Your task to perform on an android device: read, delete, or share a saved page in the chrome app Image 0: 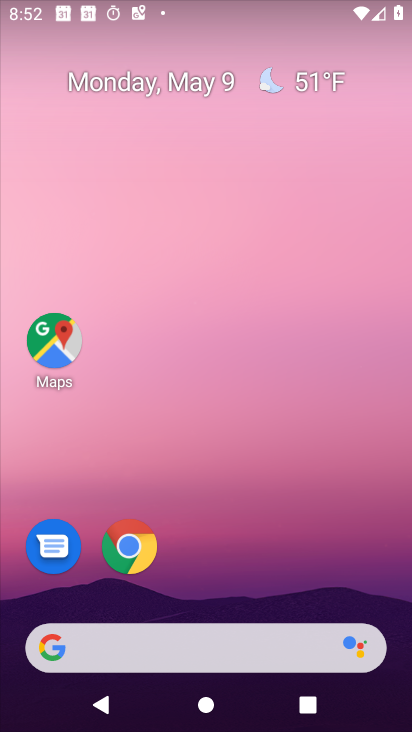
Step 0: click (121, 543)
Your task to perform on an android device: read, delete, or share a saved page in the chrome app Image 1: 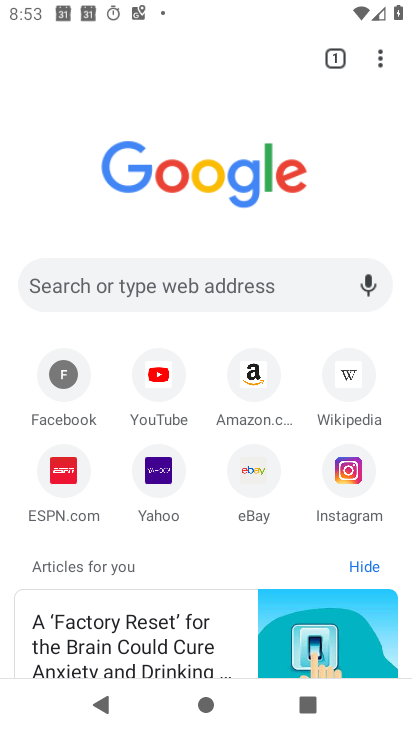
Step 1: click (159, 480)
Your task to perform on an android device: read, delete, or share a saved page in the chrome app Image 2: 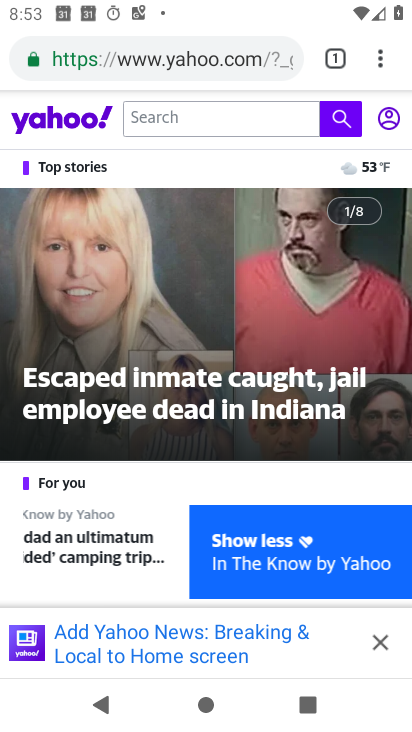
Step 2: drag from (295, 561) to (332, 258)
Your task to perform on an android device: read, delete, or share a saved page in the chrome app Image 3: 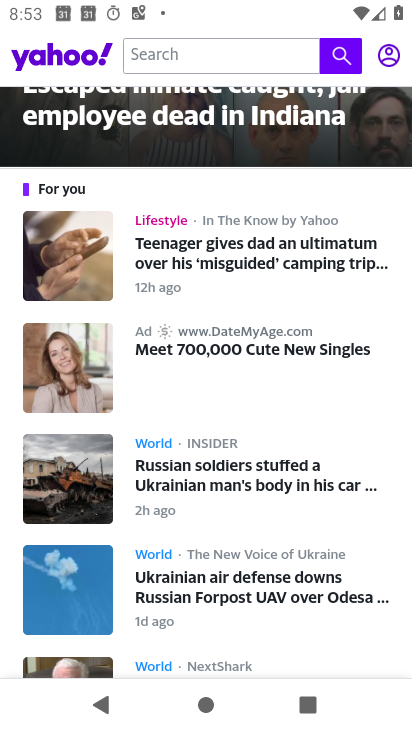
Step 3: drag from (350, 600) to (331, 646)
Your task to perform on an android device: read, delete, or share a saved page in the chrome app Image 4: 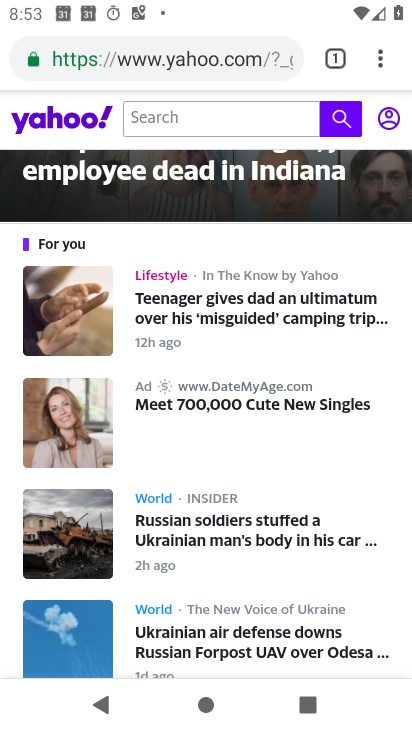
Step 4: drag from (333, 246) to (321, 558)
Your task to perform on an android device: read, delete, or share a saved page in the chrome app Image 5: 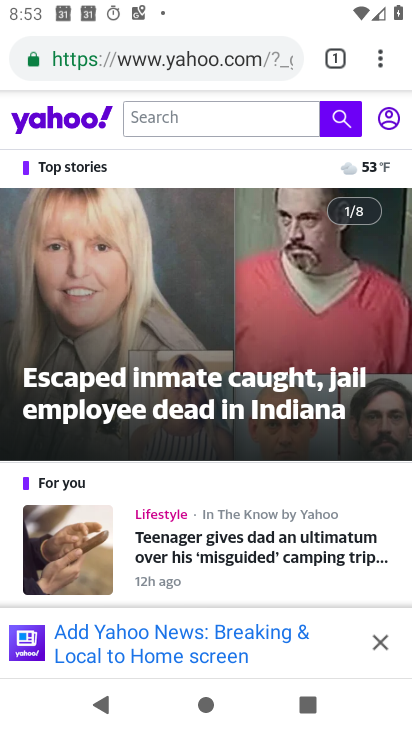
Step 5: drag from (382, 60) to (199, 53)
Your task to perform on an android device: read, delete, or share a saved page in the chrome app Image 6: 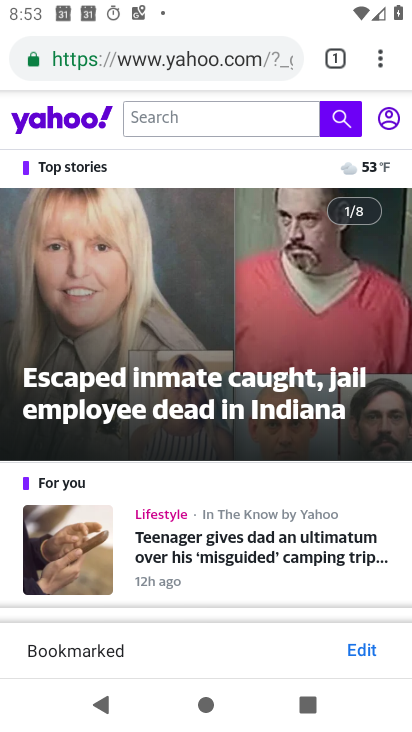
Step 6: drag from (381, 56) to (219, 55)
Your task to perform on an android device: read, delete, or share a saved page in the chrome app Image 7: 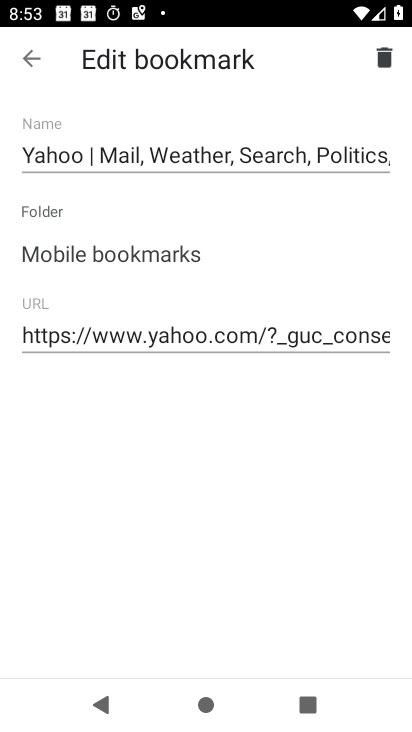
Step 7: click (379, 61)
Your task to perform on an android device: read, delete, or share a saved page in the chrome app Image 8: 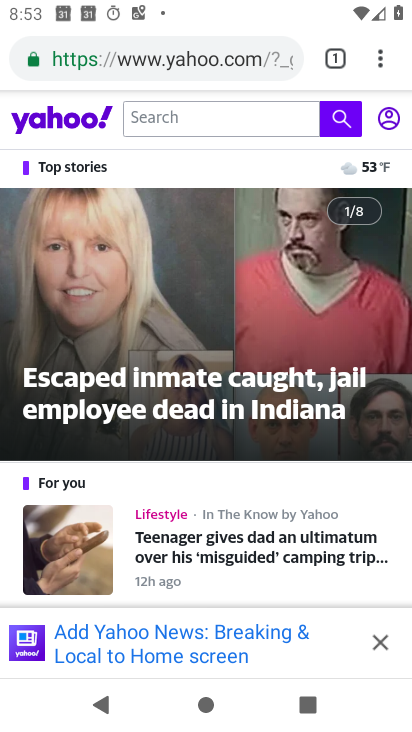
Step 8: task complete